Your task to perform on an android device: Turn off the flashlight Image 0: 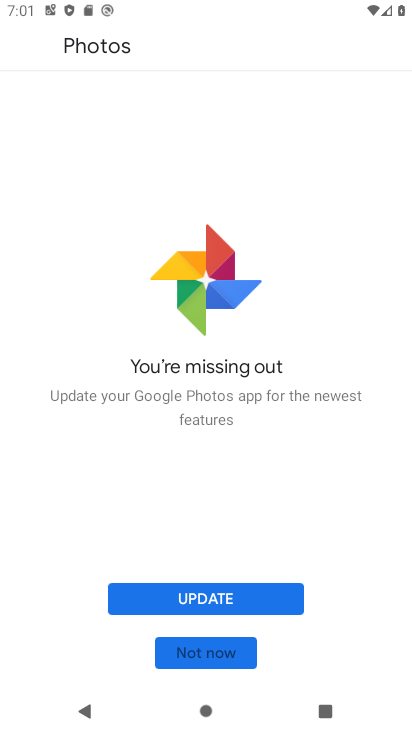
Step 0: press home button
Your task to perform on an android device: Turn off the flashlight Image 1: 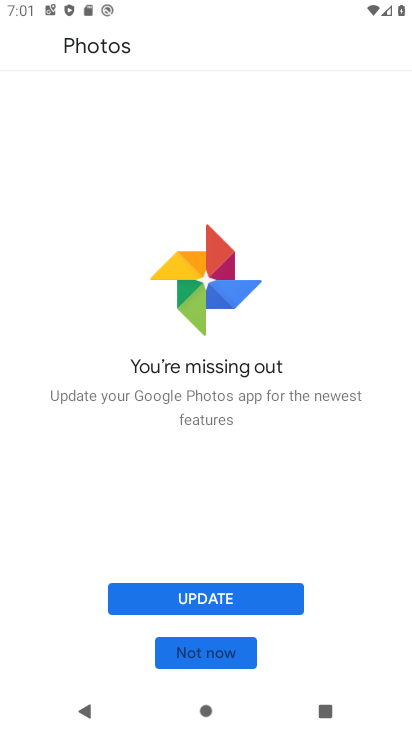
Step 1: drag from (363, 691) to (264, 45)
Your task to perform on an android device: Turn off the flashlight Image 2: 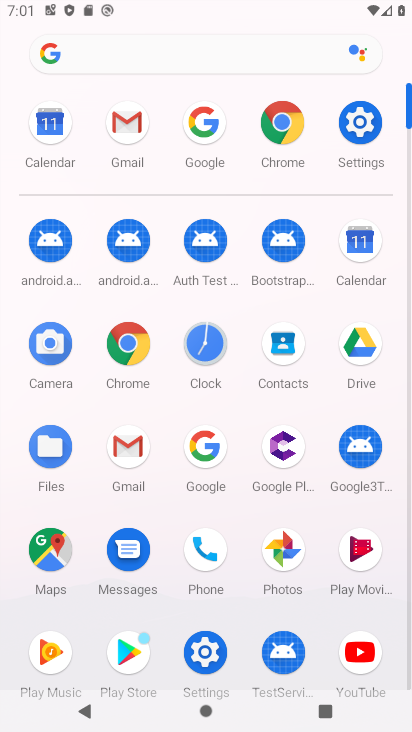
Step 2: click (350, 129)
Your task to perform on an android device: Turn off the flashlight Image 3: 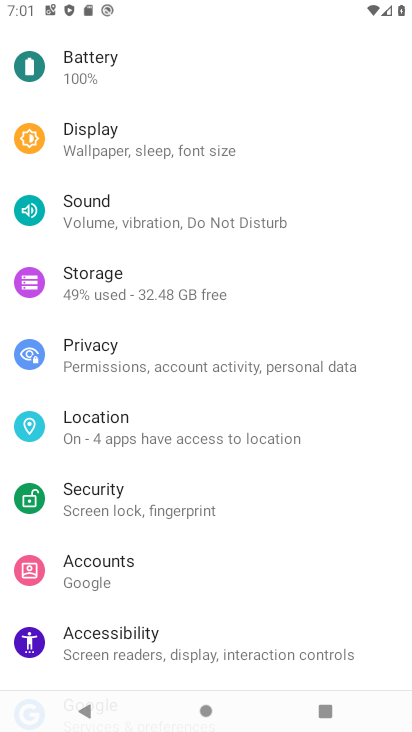
Step 3: task complete